Your task to perform on an android device: turn off priority inbox in the gmail app Image 0: 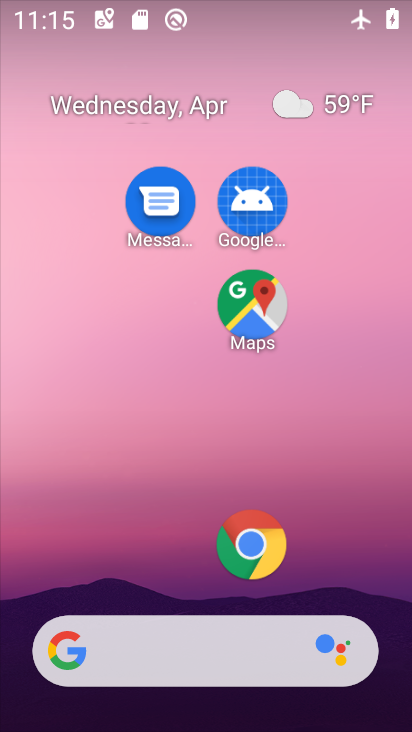
Step 0: click (214, 208)
Your task to perform on an android device: turn off priority inbox in the gmail app Image 1: 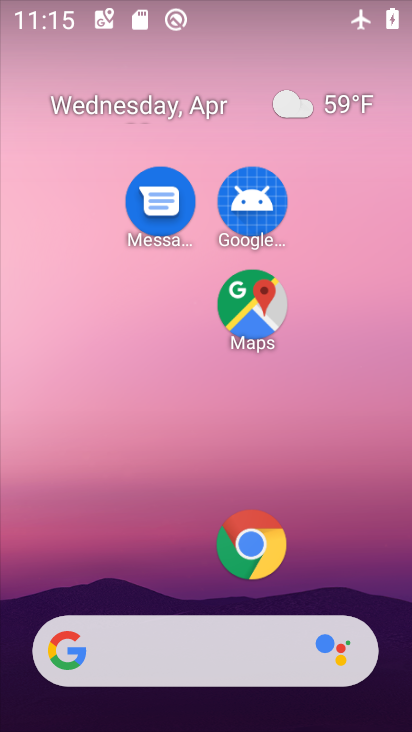
Step 1: drag from (183, 589) to (216, 107)
Your task to perform on an android device: turn off priority inbox in the gmail app Image 2: 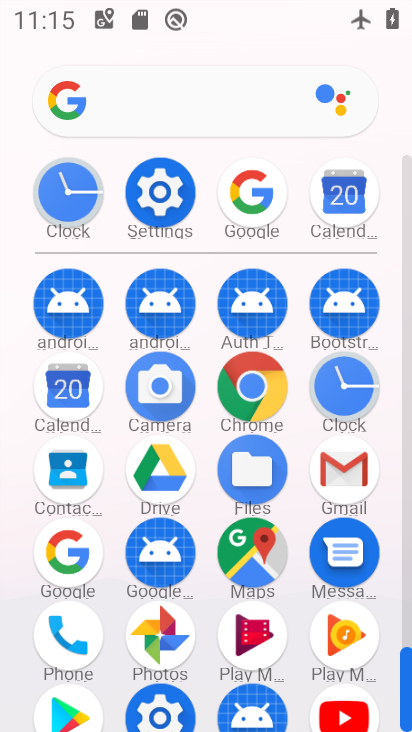
Step 2: click (368, 470)
Your task to perform on an android device: turn off priority inbox in the gmail app Image 3: 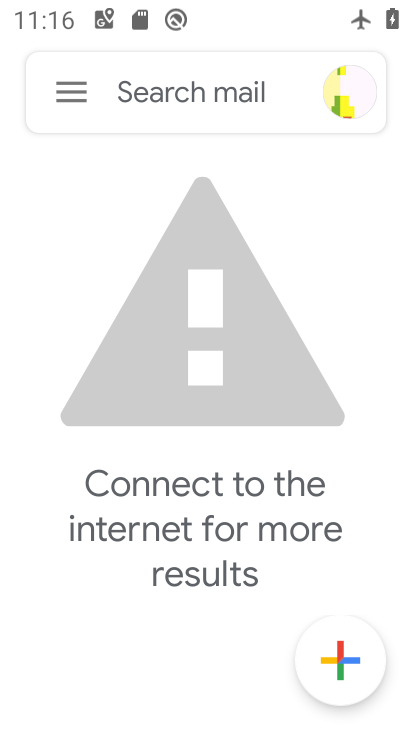
Step 3: click (60, 86)
Your task to perform on an android device: turn off priority inbox in the gmail app Image 4: 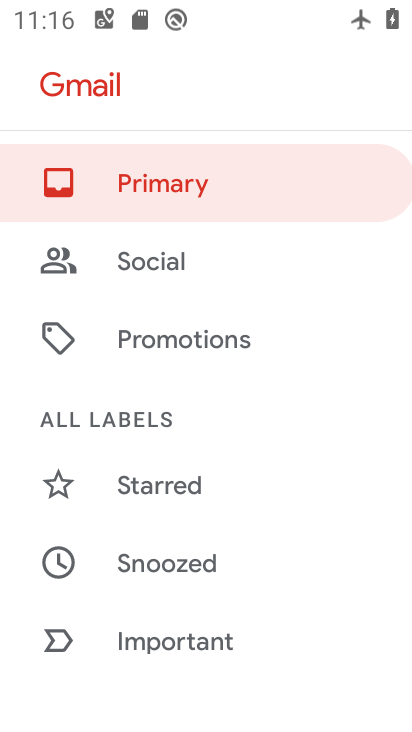
Step 4: drag from (183, 655) to (190, 270)
Your task to perform on an android device: turn off priority inbox in the gmail app Image 5: 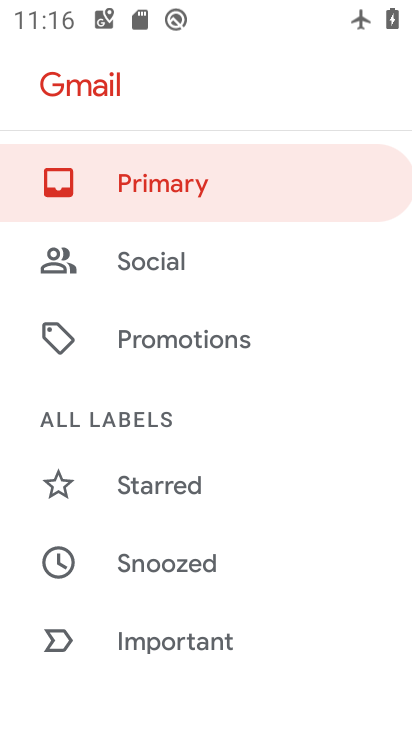
Step 5: drag from (196, 554) to (219, 199)
Your task to perform on an android device: turn off priority inbox in the gmail app Image 6: 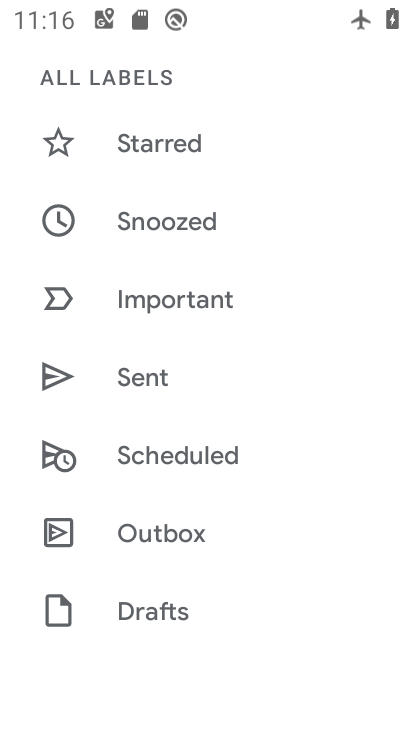
Step 6: drag from (261, 552) to (281, 172)
Your task to perform on an android device: turn off priority inbox in the gmail app Image 7: 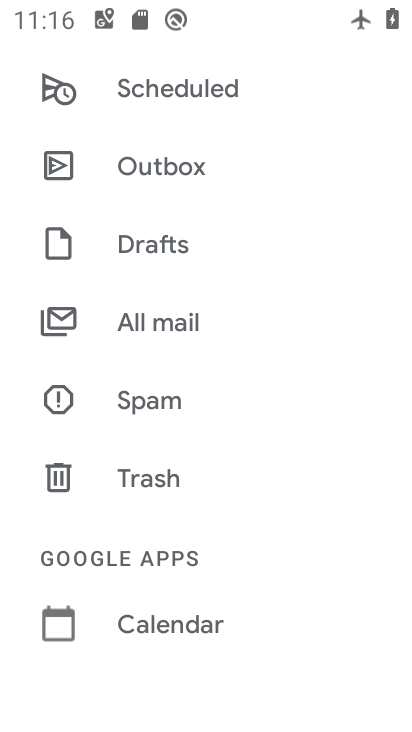
Step 7: drag from (234, 515) to (234, 213)
Your task to perform on an android device: turn off priority inbox in the gmail app Image 8: 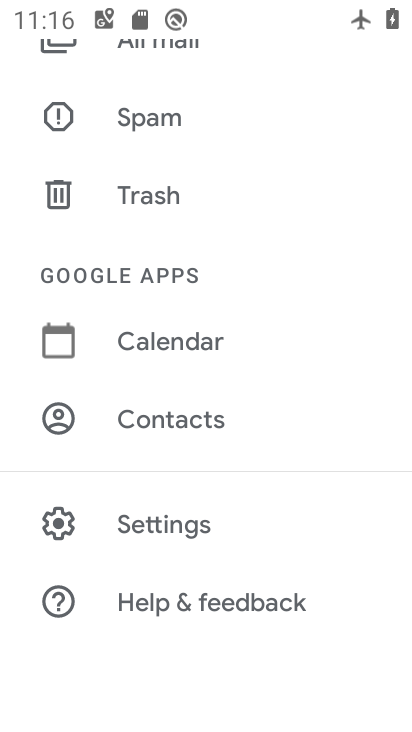
Step 8: click (210, 512)
Your task to perform on an android device: turn off priority inbox in the gmail app Image 9: 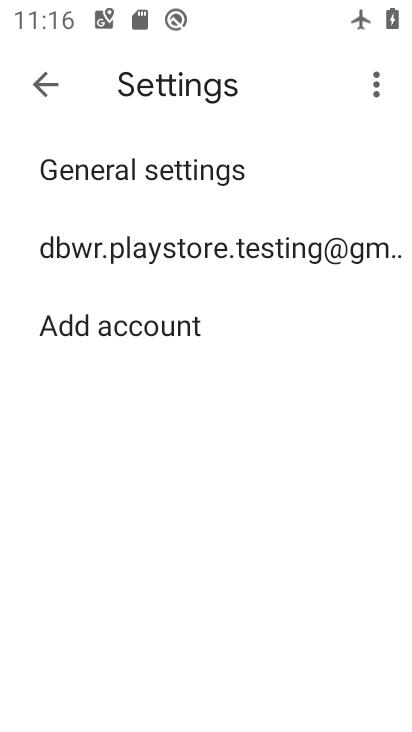
Step 9: click (141, 251)
Your task to perform on an android device: turn off priority inbox in the gmail app Image 10: 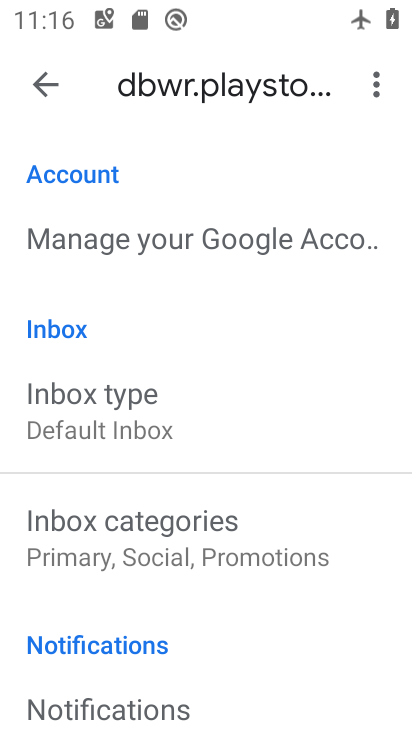
Step 10: drag from (183, 660) to (205, 467)
Your task to perform on an android device: turn off priority inbox in the gmail app Image 11: 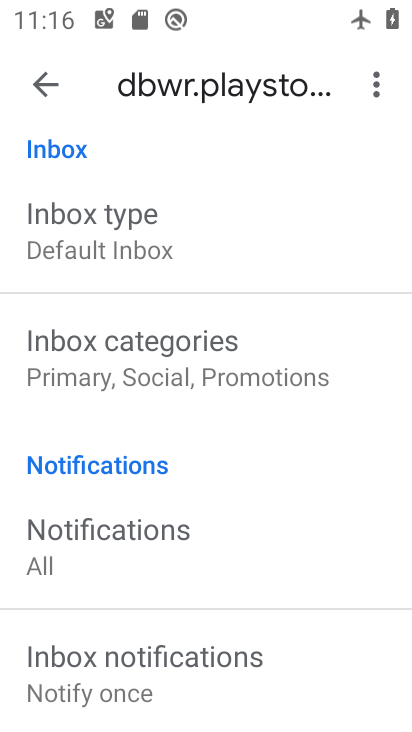
Step 11: click (116, 260)
Your task to perform on an android device: turn off priority inbox in the gmail app Image 12: 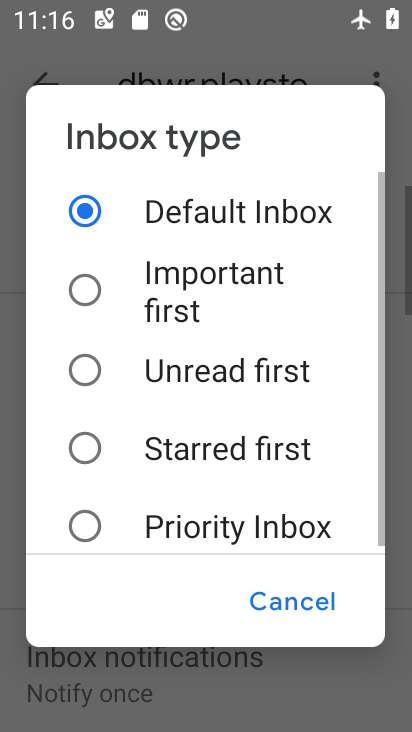
Step 12: task complete